Your task to perform on an android device: turn off priority inbox in the gmail app Image 0: 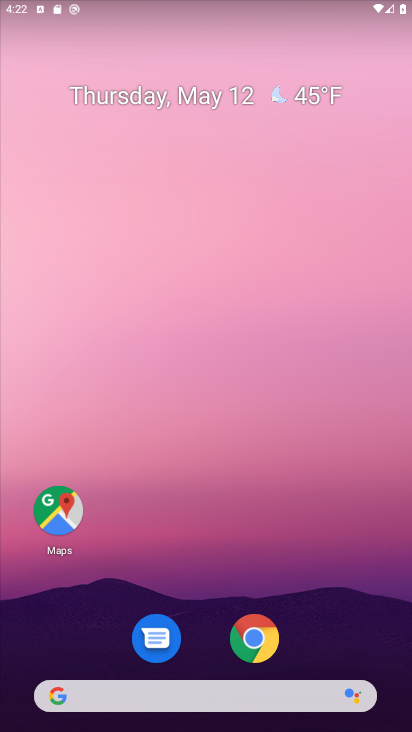
Step 0: drag from (337, 605) to (254, 92)
Your task to perform on an android device: turn off priority inbox in the gmail app Image 1: 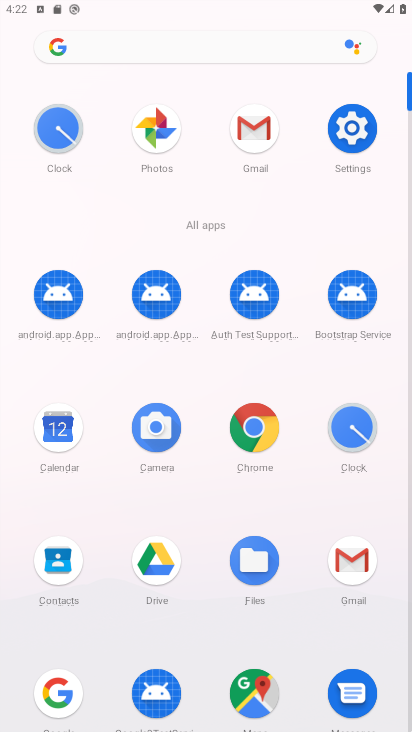
Step 1: click (262, 132)
Your task to perform on an android device: turn off priority inbox in the gmail app Image 2: 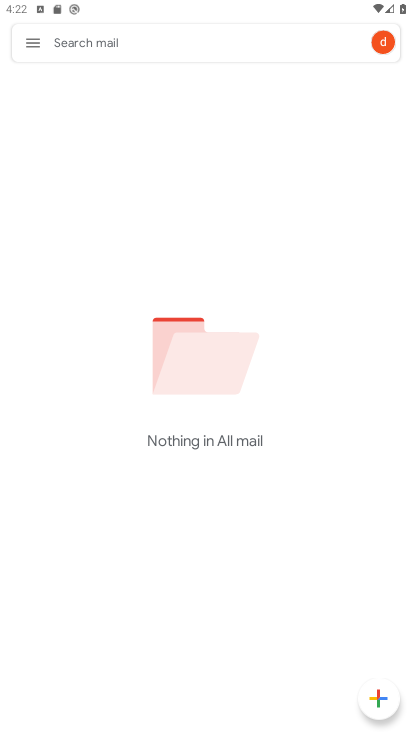
Step 2: click (29, 41)
Your task to perform on an android device: turn off priority inbox in the gmail app Image 3: 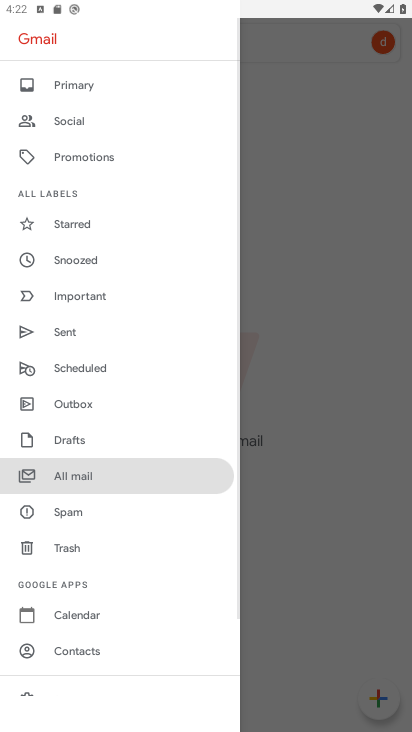
Step 3: drag from (121, 548) to (94, 225)
Your task to perform on an android device: turn off priority inbox in the gmail app Image 4: 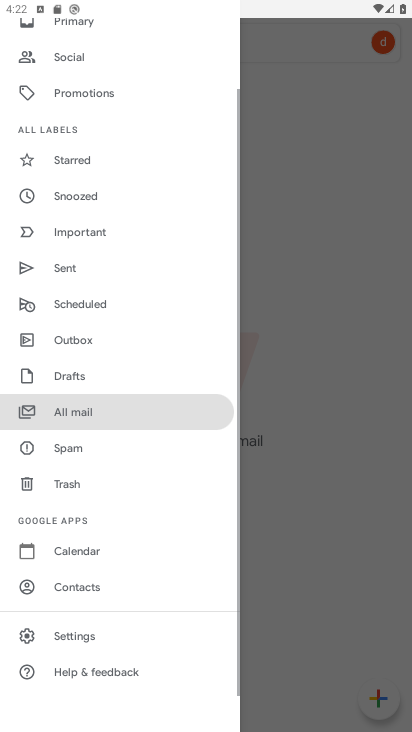
Step 4: click (96, 636)
Your task to perform on an android device: turn off priority inbox in the gmail app Image 5: 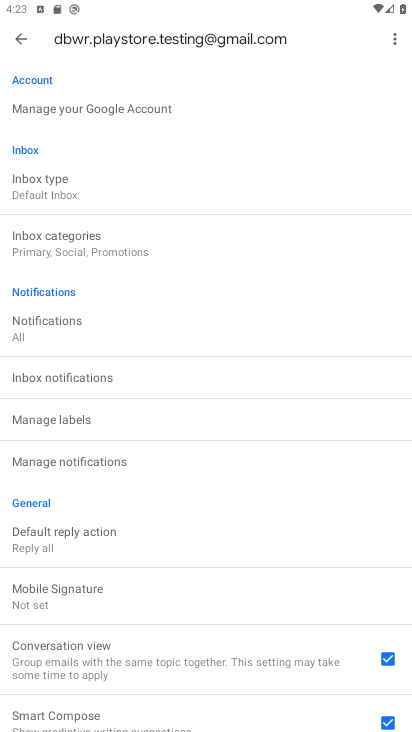
Step 5: click (91, 186)
Your task to perform on an android device: turn off priority inbox in the gmail app Image 6: 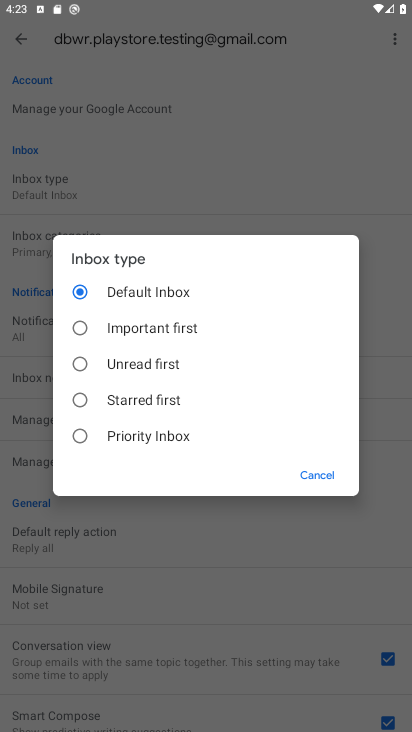
Step 6: task complete